Your task to perform on an android device: Search for Italian restaurants on Maps Image 0: 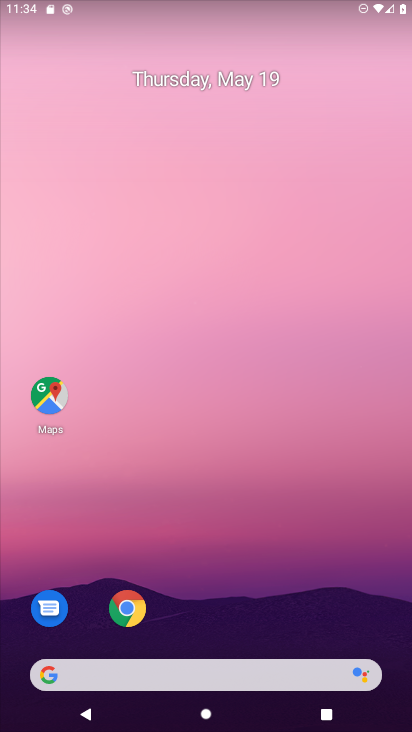
Step 0: click (55, 417)
Your task to perform on an android device: Search for Italian restaurants on Maps Image 1: 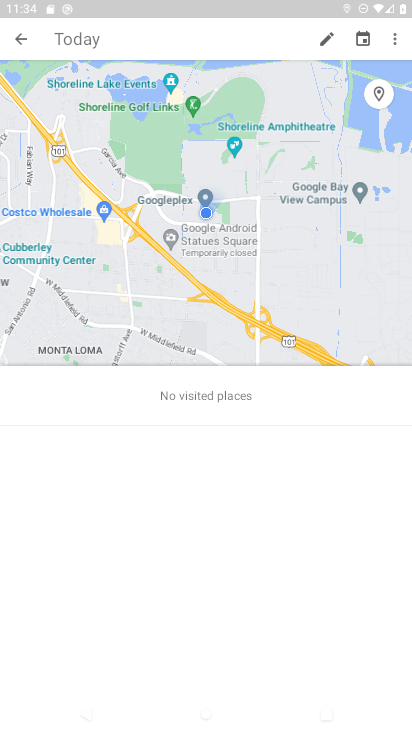
Step 1: click (18, 46)
Your task to perform on an android device: Search for Italian restaurants on Maps Image 2: 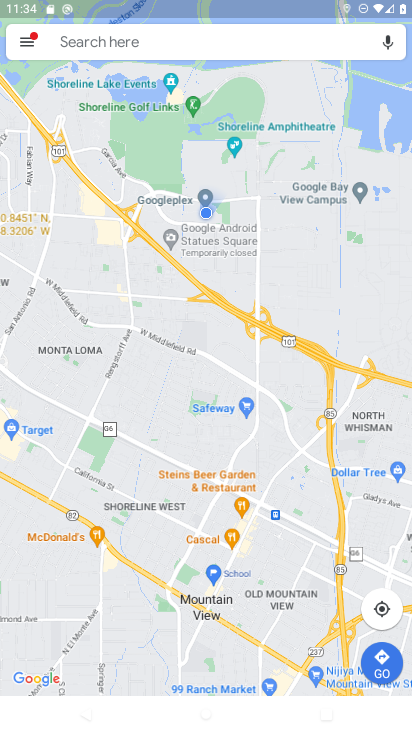
Step 2: click (95, 39)
Your task to perform on an android device: Search for Italian restaurants on Maps Image 3: 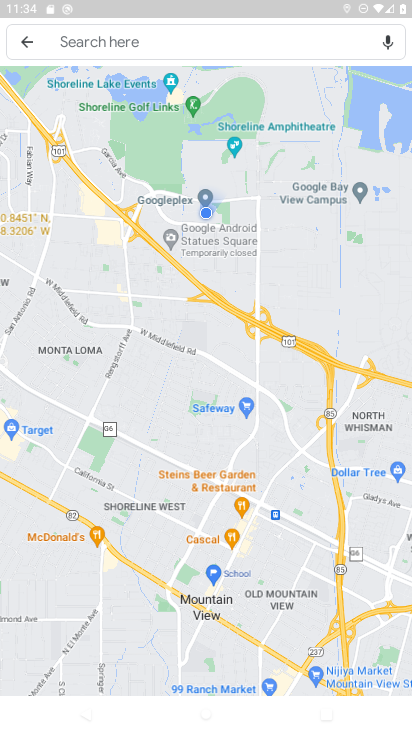
Step 3: click (95, 39)
Your task to perform on an android device: Search for Italian restaurants on Maps Image 4: 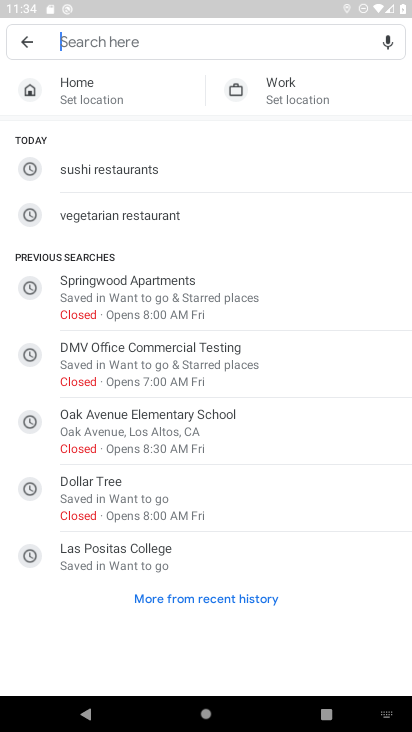
Step 4: type "Italian restaurants"
Your task to perform on an android device: Search for Italian restaurants on Maps Image 5: 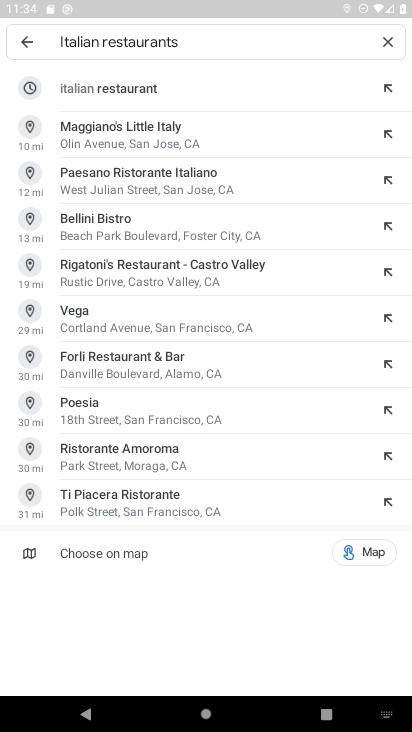
Step 5: click (139, 97)
Your task to perform on an android device: Search for Italian restaurants on Maps Image 6: 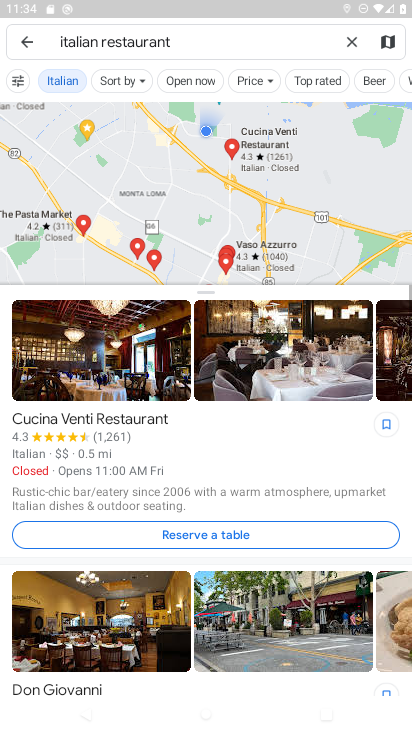
Step 6: task complete